Your task to perform on an android device: toggle data saver in the chrome app Image 0: 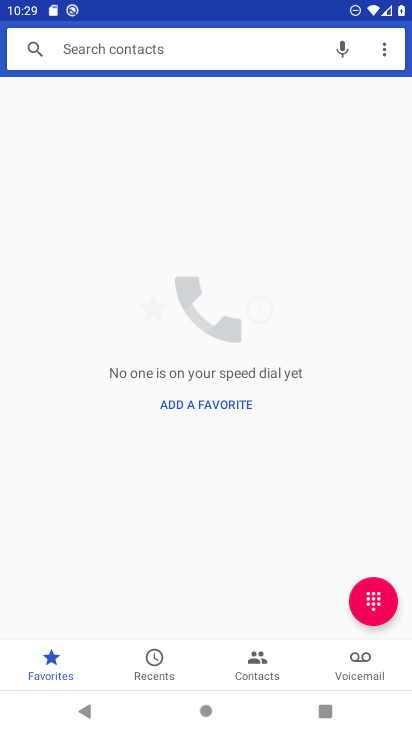
Step 0: press home button
Your task to perform on an android device: toggle data saver in the chrome app Image 1: 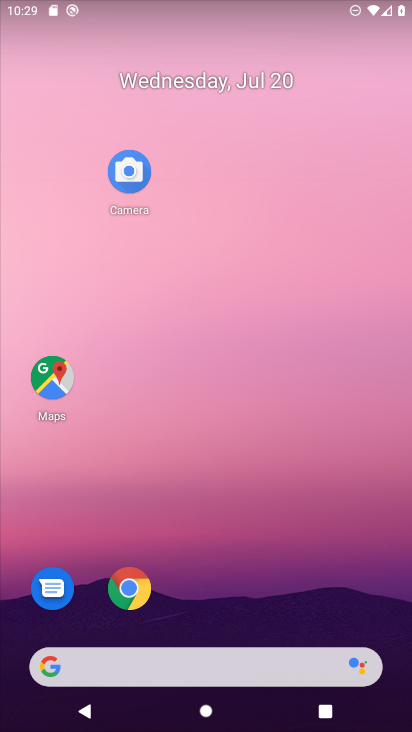
Step 1: click (126, 591)
Your task to perform on an android device: toggle data saver in the chrome app Image 2: 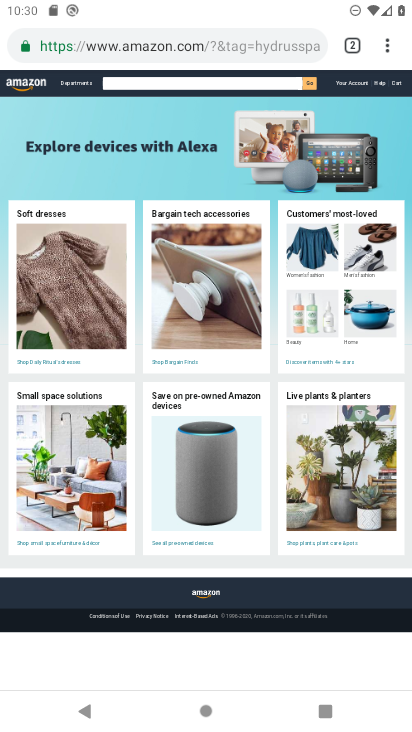
Step 2: drag from (388, 45) to (230, 542)
Your task to perform on an android device: toggle data saver in the chrome app Image 3: 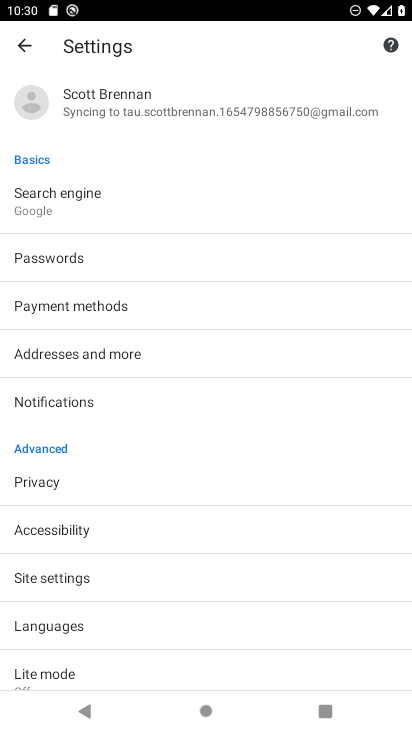
Step 3: drag from (141, 452) to (148, 156)
Your task to perform on an android device: toggle data saver in the chrome app Image 4: 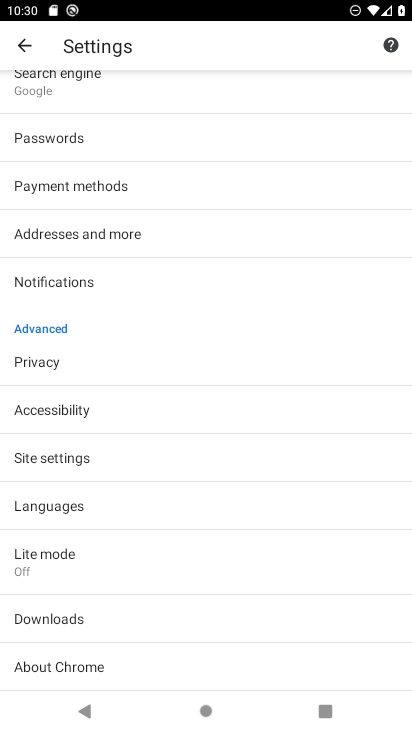
Step 4: click (49, 567)
Your task to perform on an android device: toggle data saver in the chrome app Image 5: 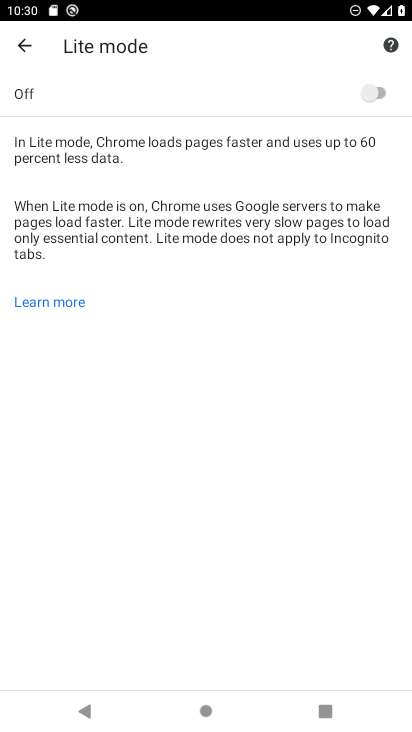
Step 5: click (379, 89)
Your task to perform on an android device: toggle data saver in the chrome app Image 6: 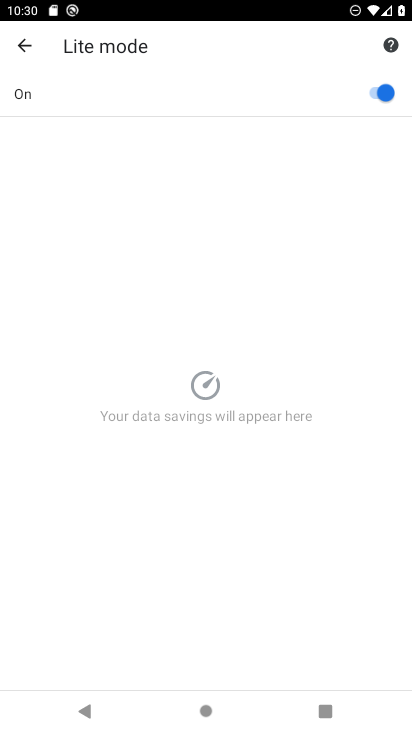
Step 6: task complete